Your task to perform on an android device: turn on improve location accuracy Image 0: 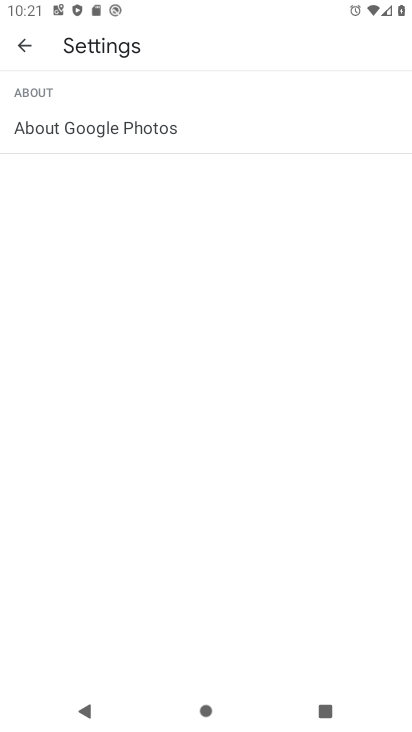
Step 0: press home button
Your task to perform on an android device: turn on improve location accuracy Image 1: 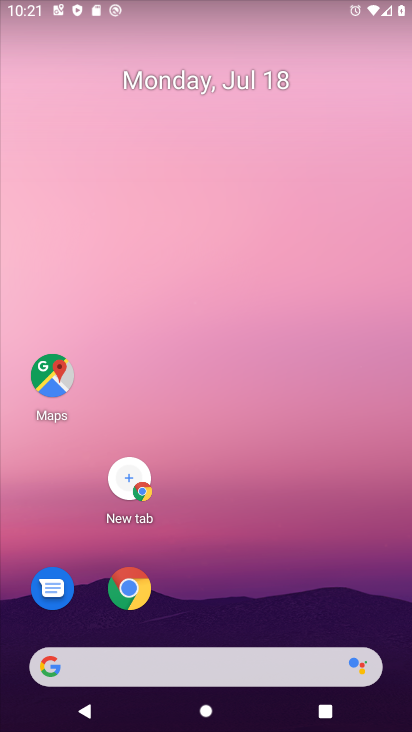
Step 1: drag from (215, 602) to (285, 39)
Your task to perform on an android device: turn on improve location accuracy Image 2: 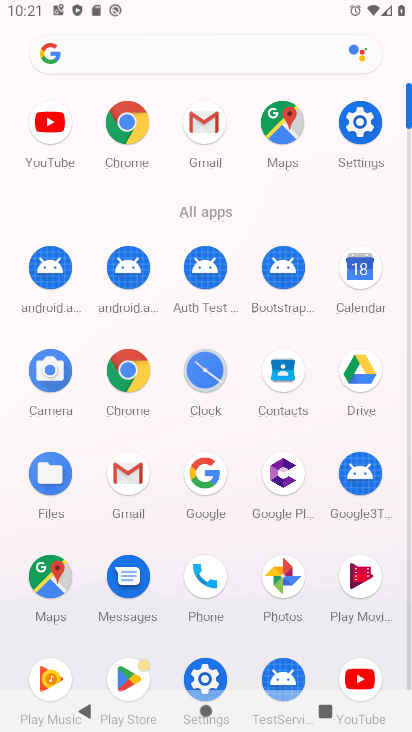
Step 2: click (212, 388)
Your task to perform on an android device: turn on improve location accuracy Image 3: 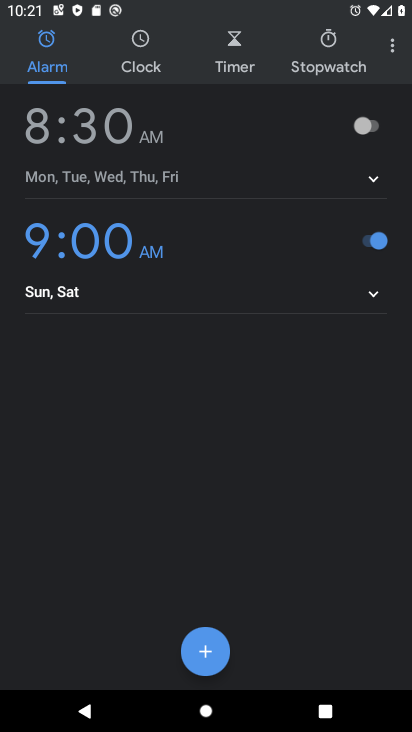
Step 3: click (241, 72)
Your task to perform on an android device: turn on improve location accuracy Image 4: 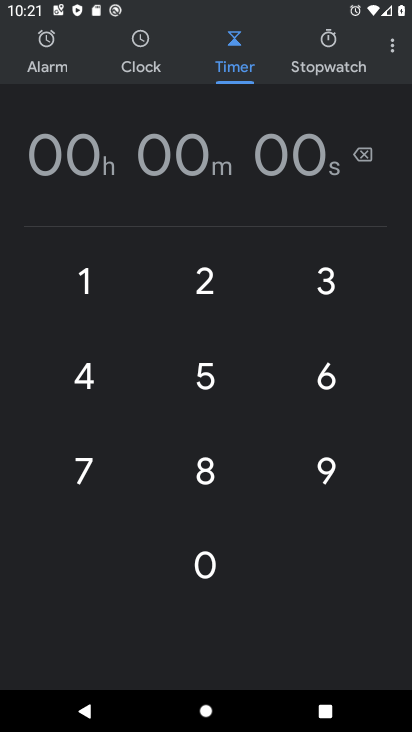
Step 4: click (199, 379)
Your task to perform on an android device: turn on improve location accuracy Image 5: 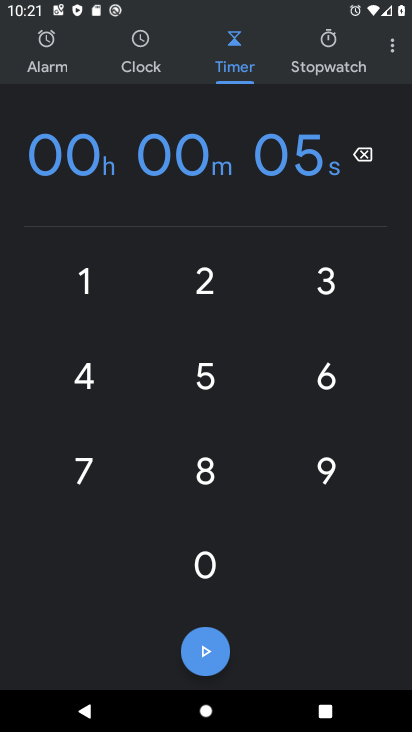
Step 5: click (218, 659)
Your task to perform on an android device: turn on improve location accuracy Image 6: 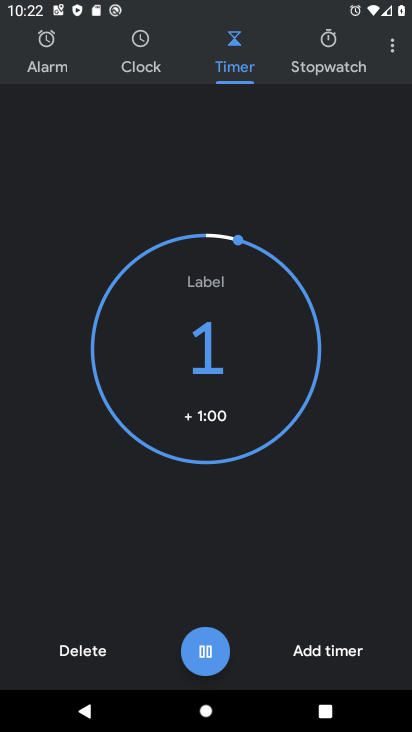
Step 6: task complete